Your task to perform on an android device: When is my next meeting? Image 0: 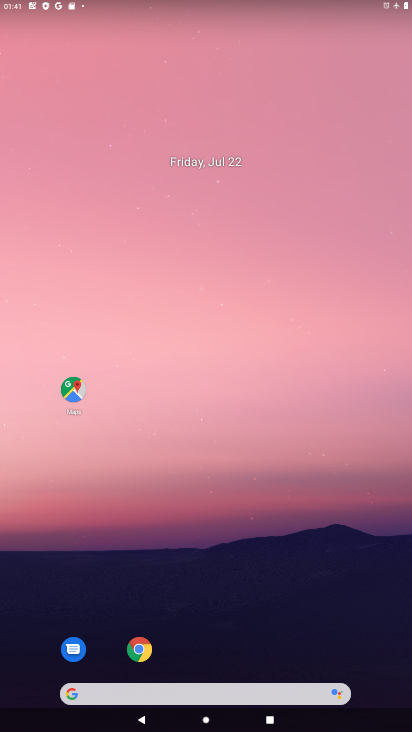
Step 0: drag from (284, 605) to (261, 61)
Your task to perform on an android device: When is my next meeting? Image 1: 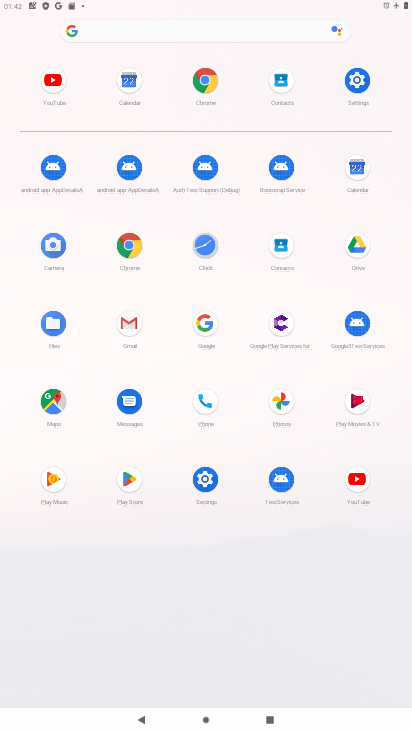
Step 1: click (355, 172)
Your task to perform on an android device: When is my next meeting? Image 2: 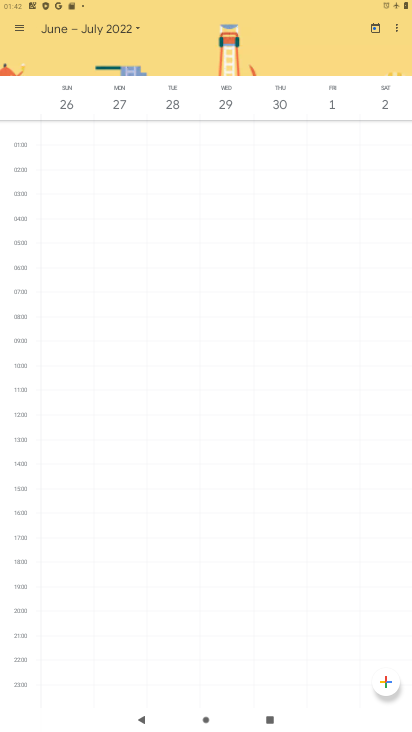
Step 2: click (72, 23)
Your task to perform on an android device: When is my next meeting? Image 3: 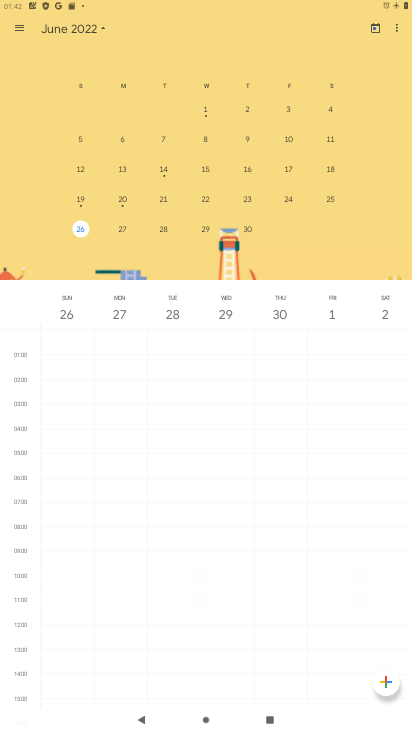
Step 3: drag from (320, 171) to (80, 134)
Your task to perform on an android device: When is my next meeting? Image 4: 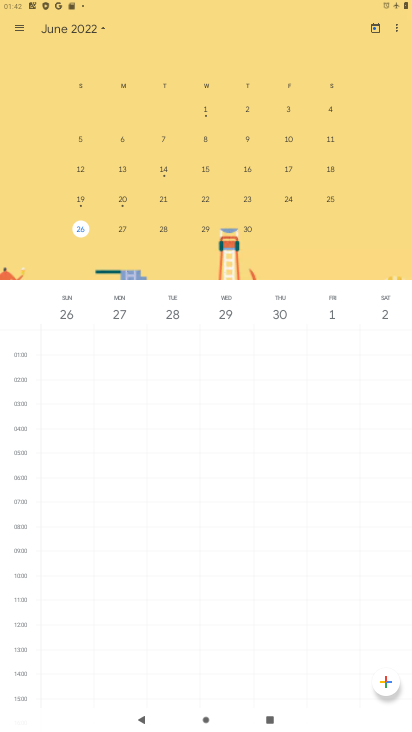
Step 4: drag from (320, 177) to (53, 152)
Your task to perform on an android device: When is my next meeting? Image 5: 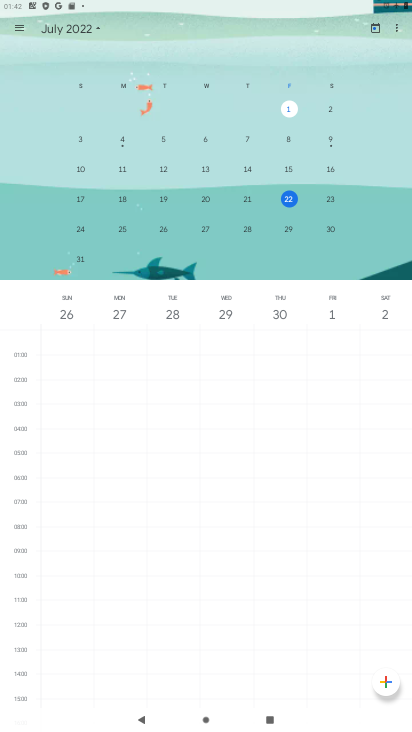
Step 5: click (290, 189)
Your task to perform on an android device: When is my next meeting? Image 6: 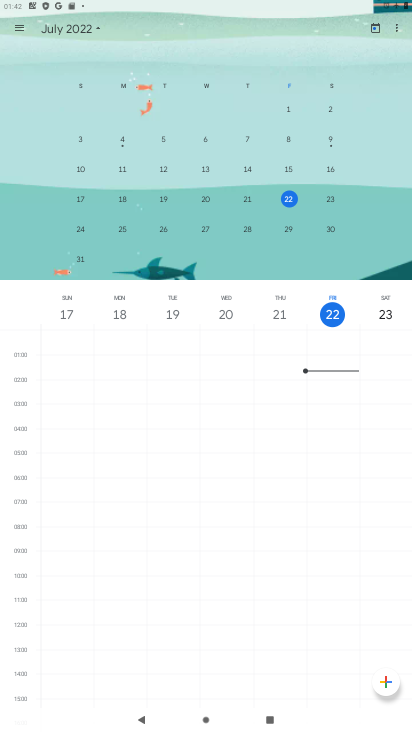
Step 6: task complete